Your task to perform on an android device: see tabs open on other devices in the chrome app Image 0: 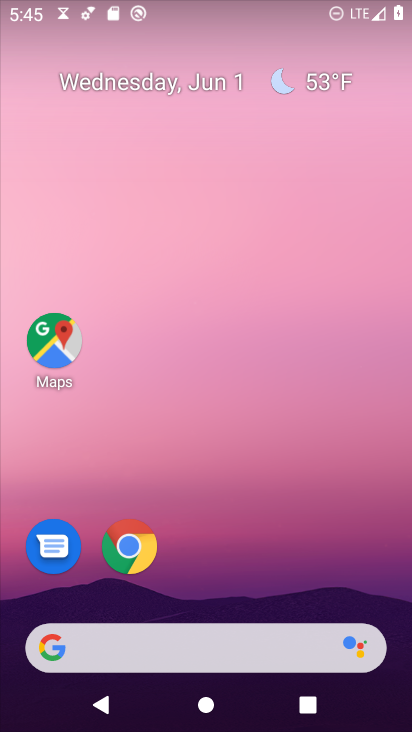
Step 0: drag from (191, 84) to (181, 29)
Your task to perform on an android device: see tabs open on other devices in the chrome app Image 1: 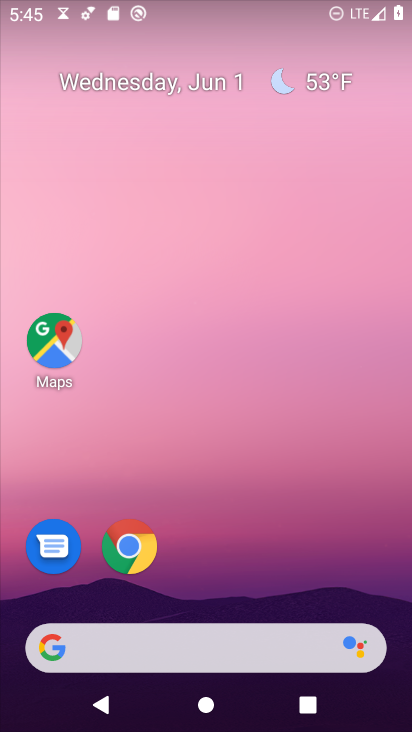
Step 1: drag from (381, 529) to (232, 4)
Your task to perform on an android device: see tabs open on other devices in the chrome app Image 2: 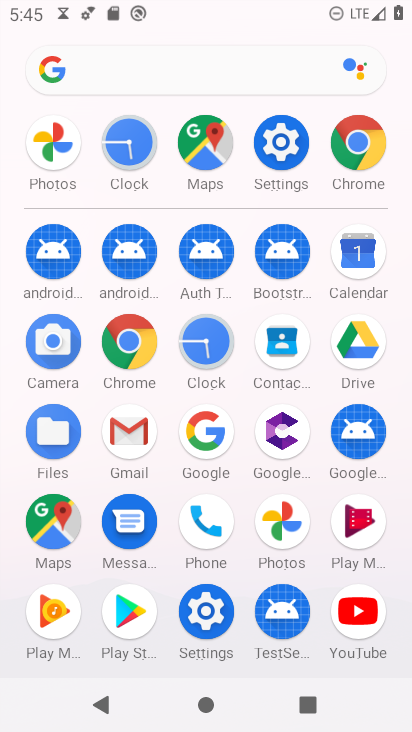
Step 2: drag from (1, 495) to (15, 164)
Your task to perform on an android device: see tabs open on other devices in the chrome app Image 3: 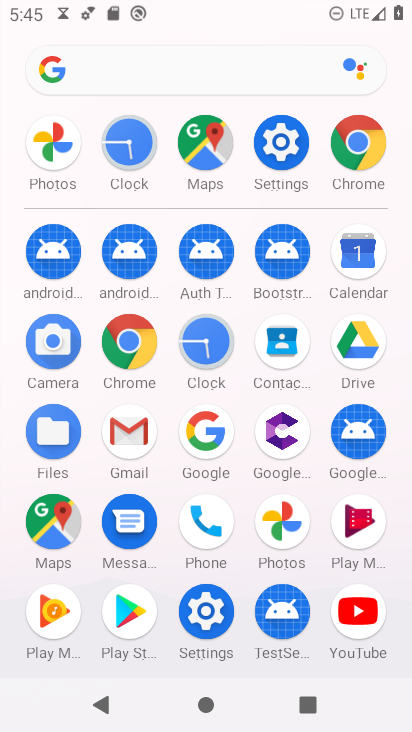
Step 3: click (133, 329)
Your task to perform on an android device: see tabs open on other devices in the chrome app Image 4: 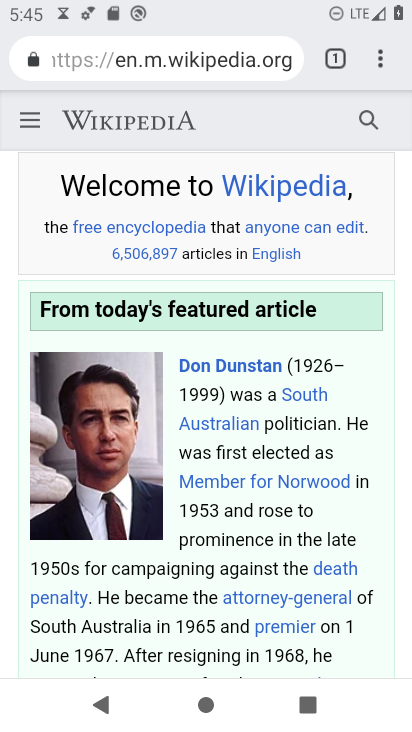
Step 4: task complete